Your task to perform on an android device: Search for a new highlighter Image 0: 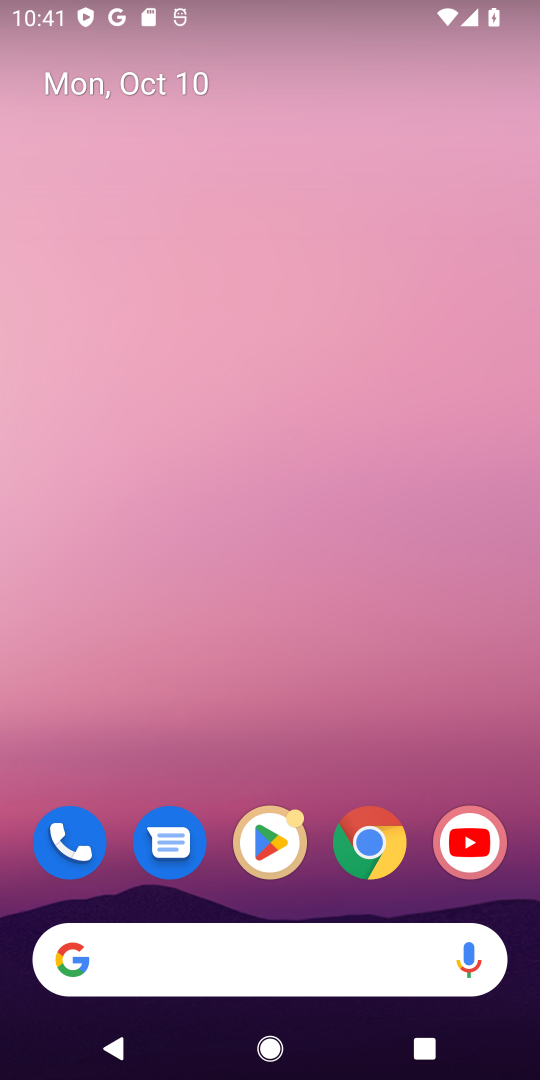
Step 0: click (142, 971)
Your task to perform on an android device: Search for a new highlighter Image 1: 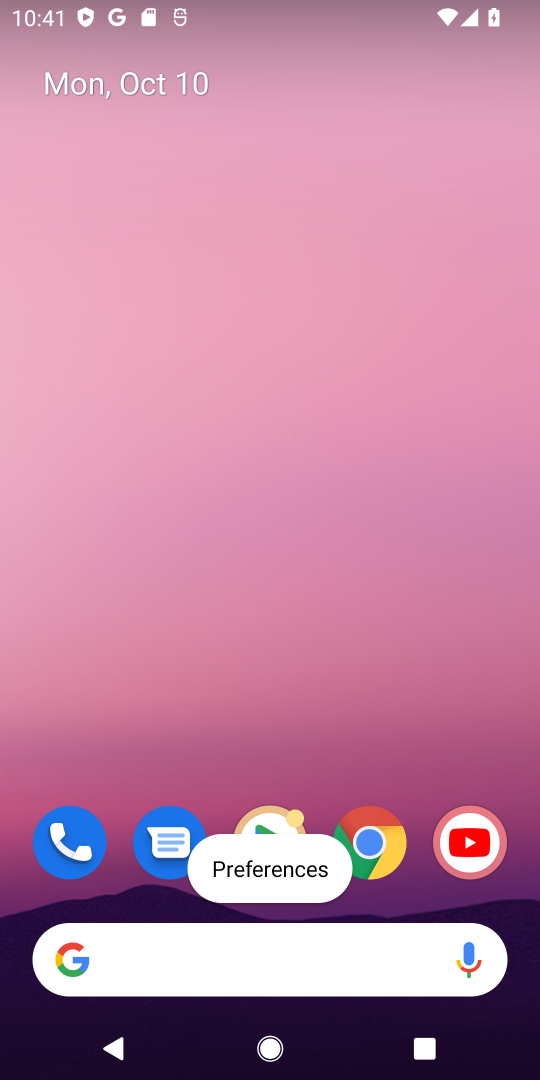
Step 1: type "new highlighter"
Your task to perform on an android device: Search for a new highlighter Image 2: 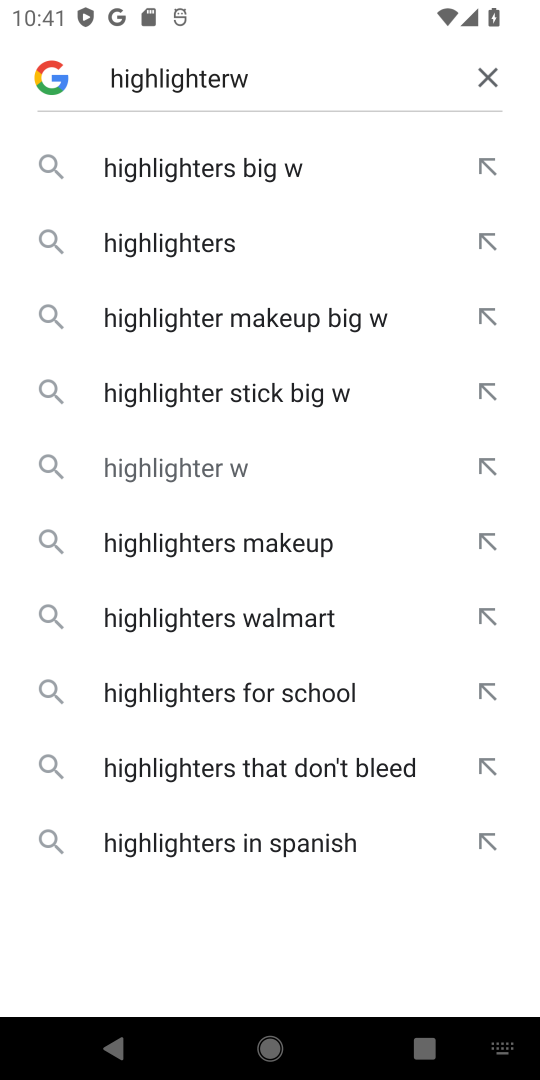
Step 2: click (485, 76)
Your task to perform on an android device: Search for a new highlighter Image 3: 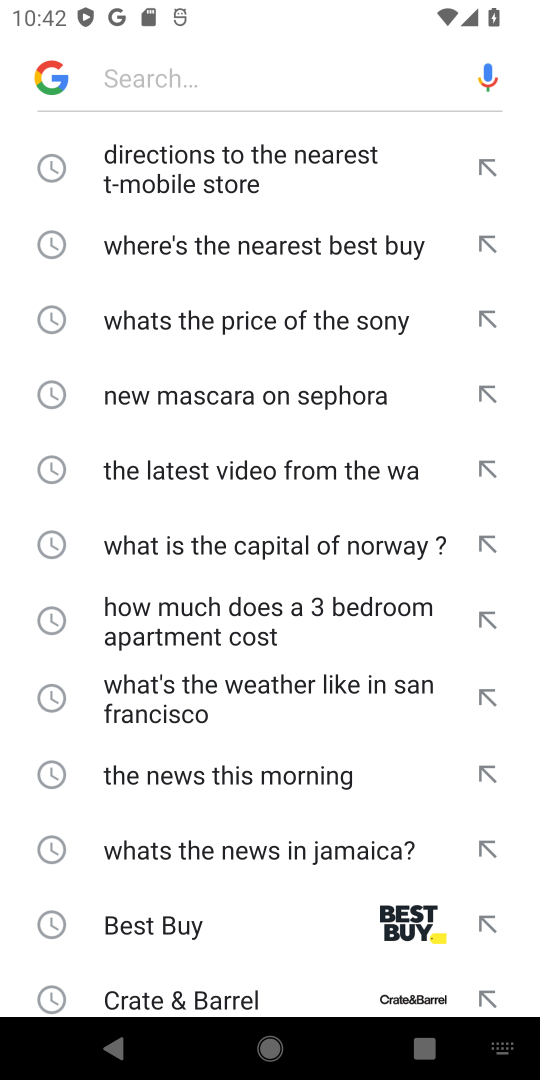
Step 3: click (133, 76)
Your task to perform on an android device: Search for a new highlighter Image 4: 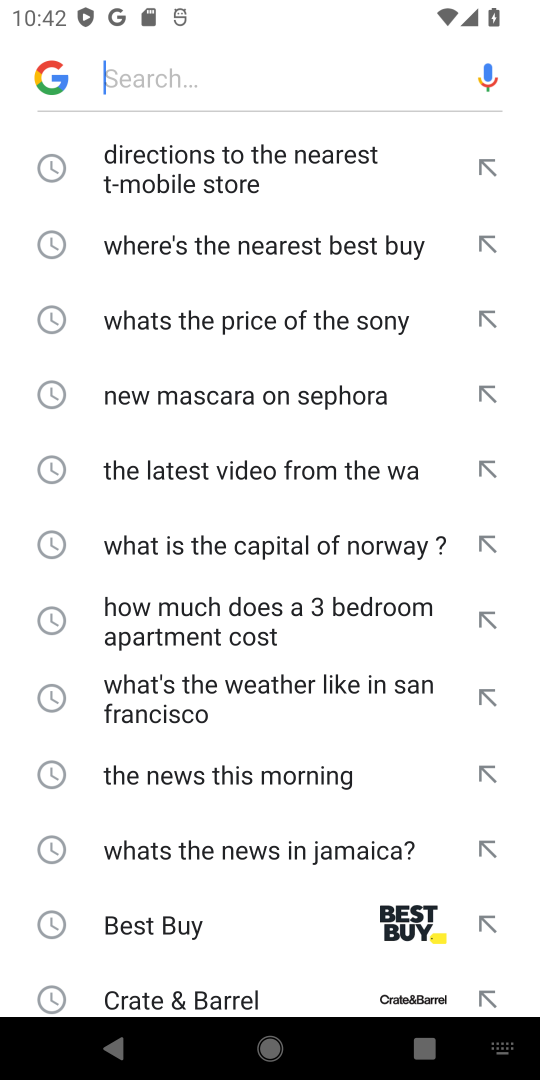
Step 4: type "new highlighter"
Your task to perform on an android device: Search for a new highlighter Image 5: 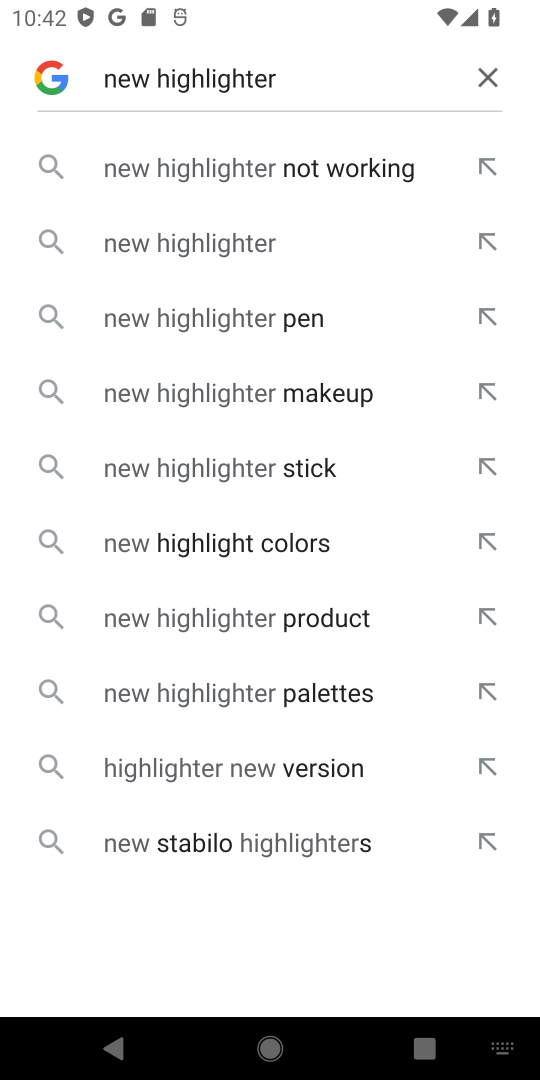
Step 5: click (219, 252)
Your task to perform on an android device: Search for a new highlighter Image 6: 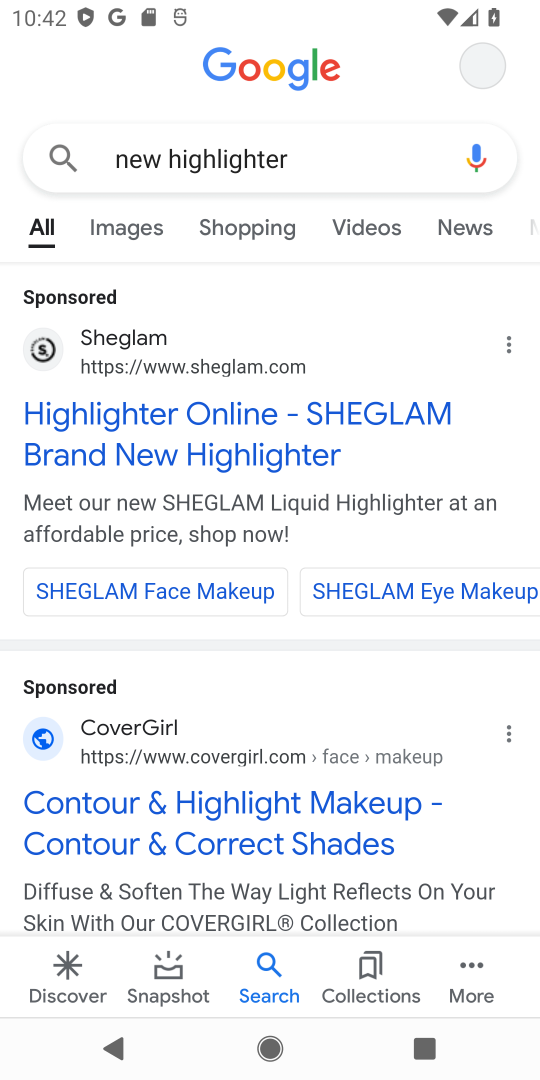
Step 6: task complete